Your task to perform on an android device: turn off airplane mode Image 0: 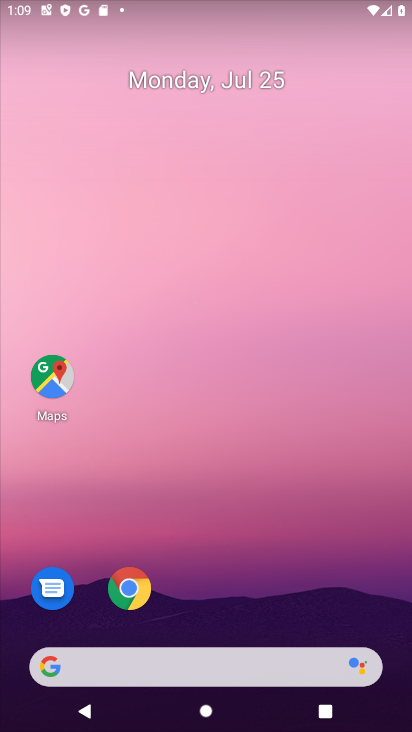
Step 0: click (204, 616)
Your task to perform on an android device: turn off airplane mode Image 1: 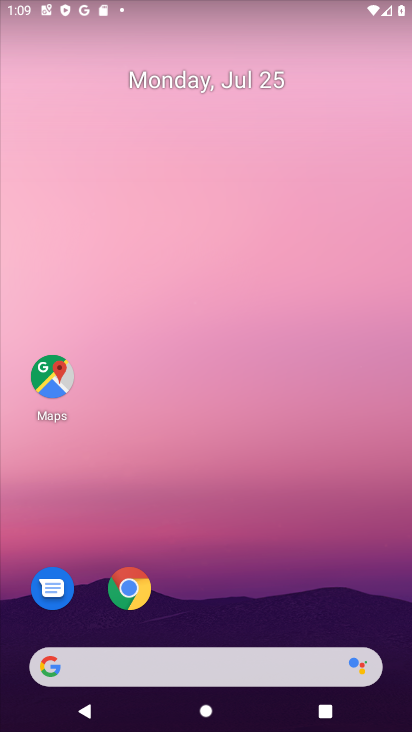
Step 1: drag from (172, 557) to (187, 139)
Your task to perform on an android device: turn off airplane mode Image 2: 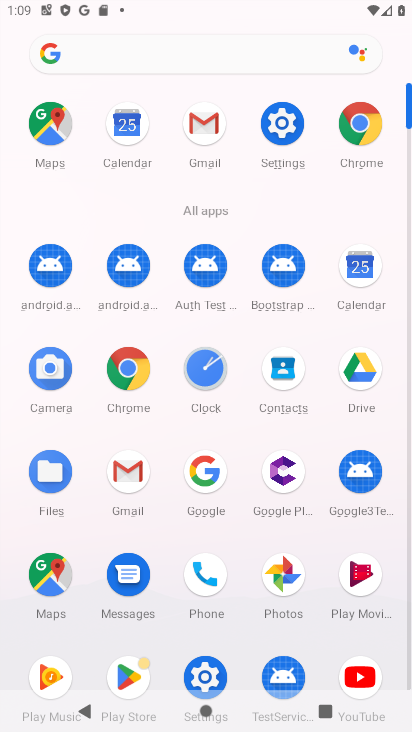
Step 2: click (290, 125)
Your task to perform on an android device: turn off airplane mode Image 3: 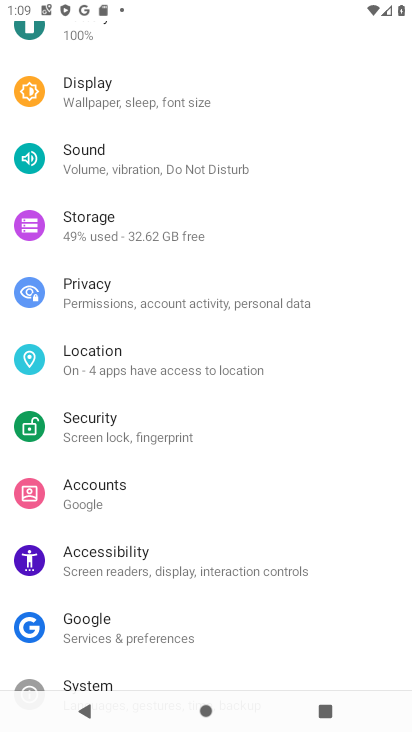
Step 3: drag from (228, 234) to (154, 713)
Your task to perform on an android device: turn off airplane mode Image 4: 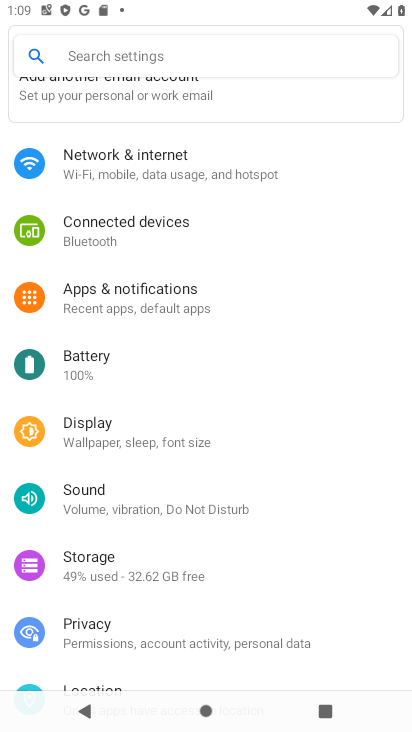
Step 4: drag from (196, 131) to (196, 168)
Your task to perform on an android device: turn off airplane mode Image 5: 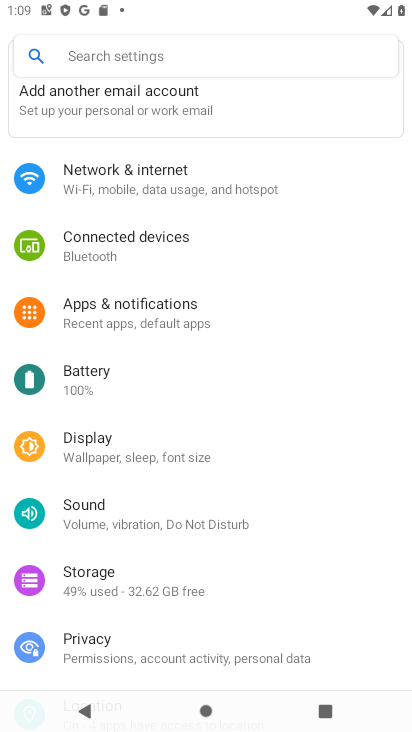
Step 5: click (196, 168)
Your task to perform on an android device: turn off airplane mode Image 6: 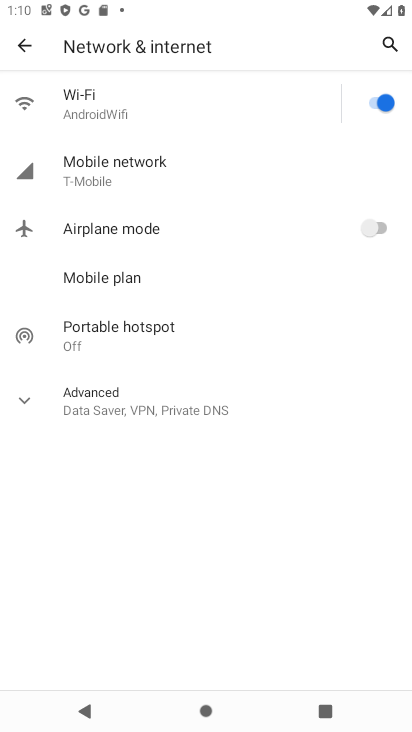
Step 6: task complete